Your task to perform on an android device: open app "Truecaller" (install if not already installed) Image 0: 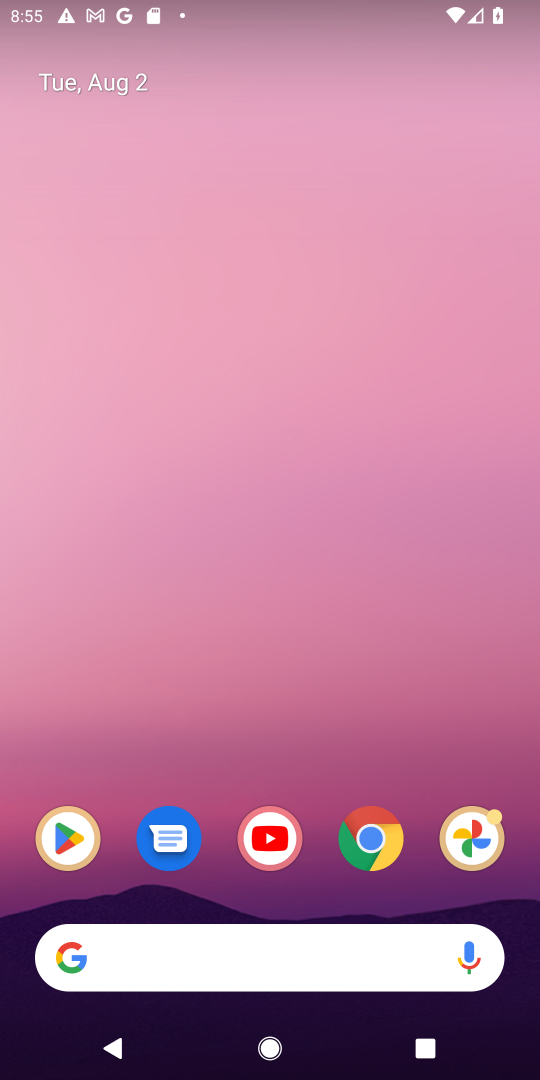
Step 0: press home button
Your task to perform on an android device: open app "Truecaller" (install if not already installed) Image 1: 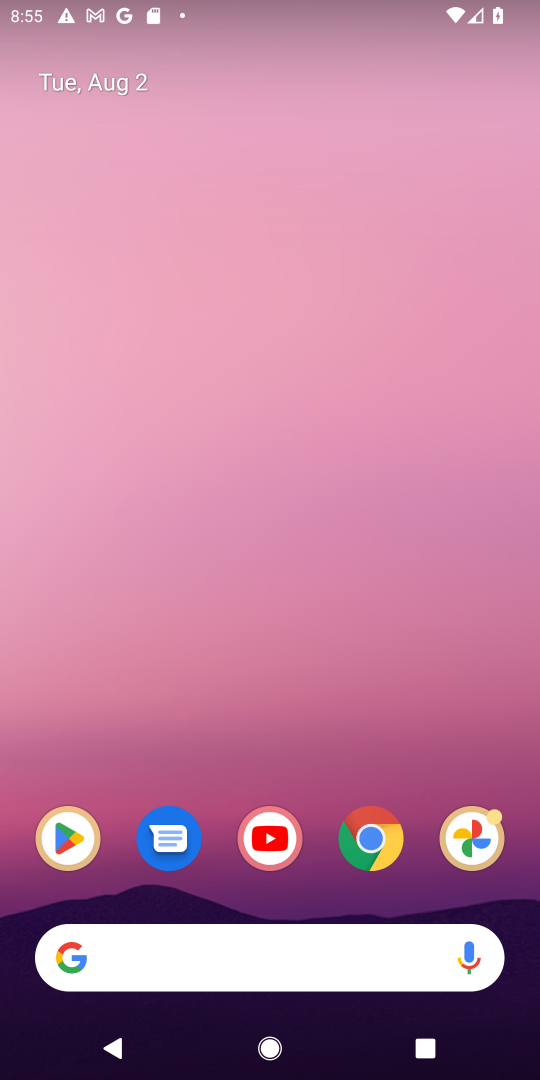
Step 1: drag from (313, 786) to (283, 61)
Your task to perform on an android device: open app "Truecaller" (install if not already installed) Image 2: 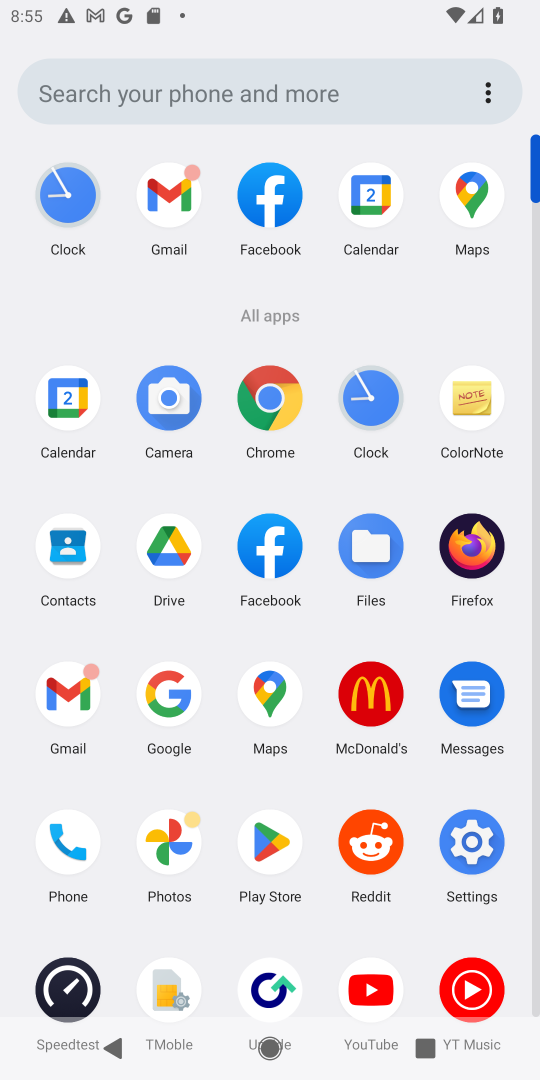
Step 2: click (267, 850)
Your task to perform on an android device: open app "Truecaller" (install if not already installed) Image 3: 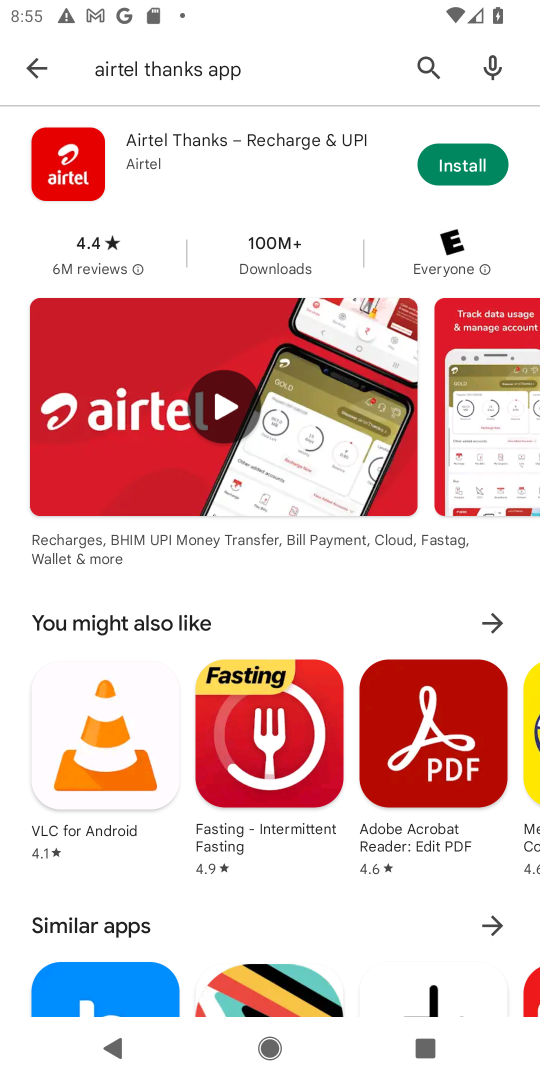
Step 3: click (424, 58)
Your task to perform on an android device: open app "Truecaller" (install if not already installed) Image 4: 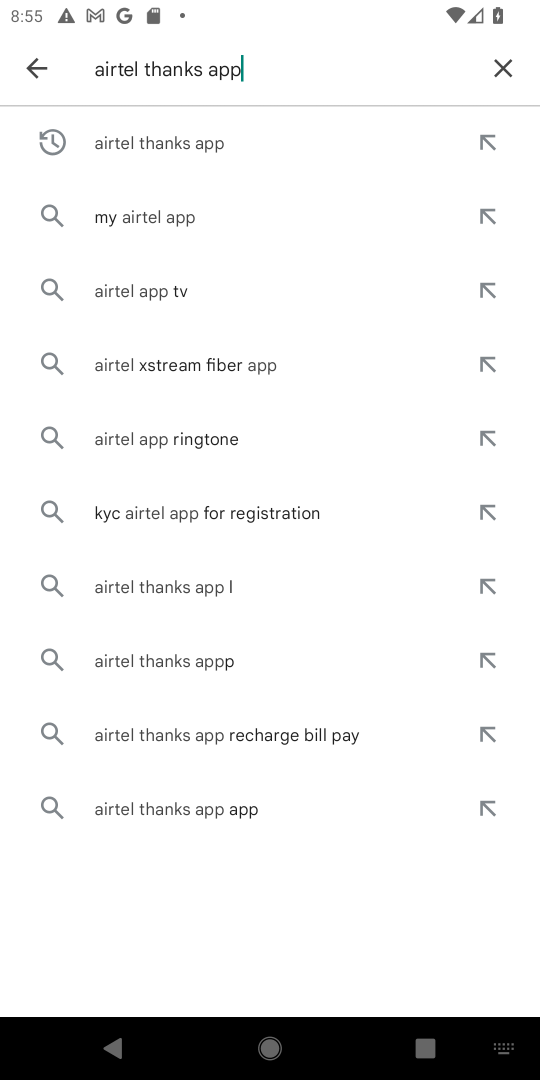
Step 4: click (502, 70)
Your task to perform on an android device: open app "Truecaller" (install if not already installed) Image 5: 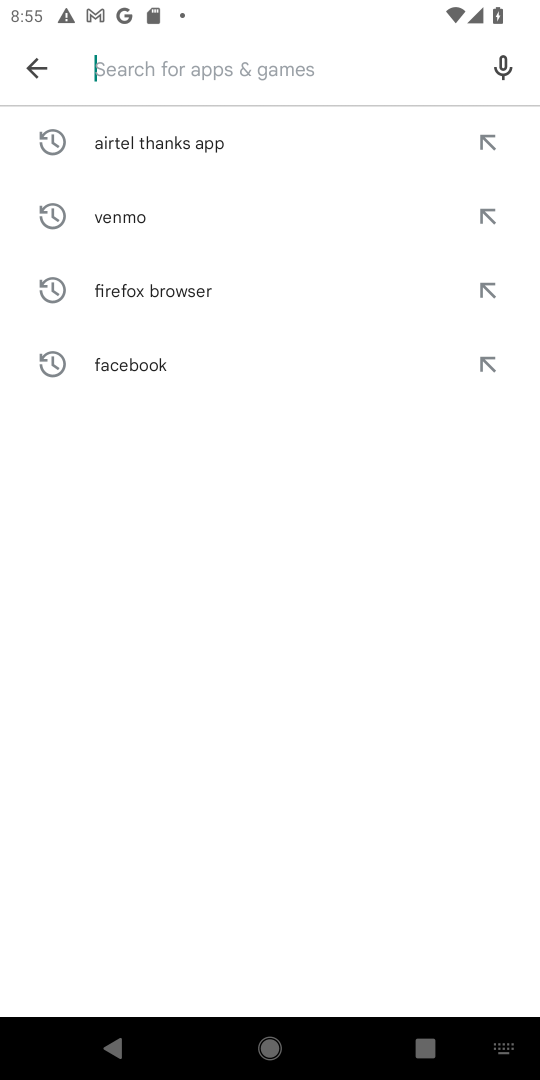
Step 5: click (425, 82)
Your task to perform on an android device: open app "Truecaller" (install if not already installed) Image 6: 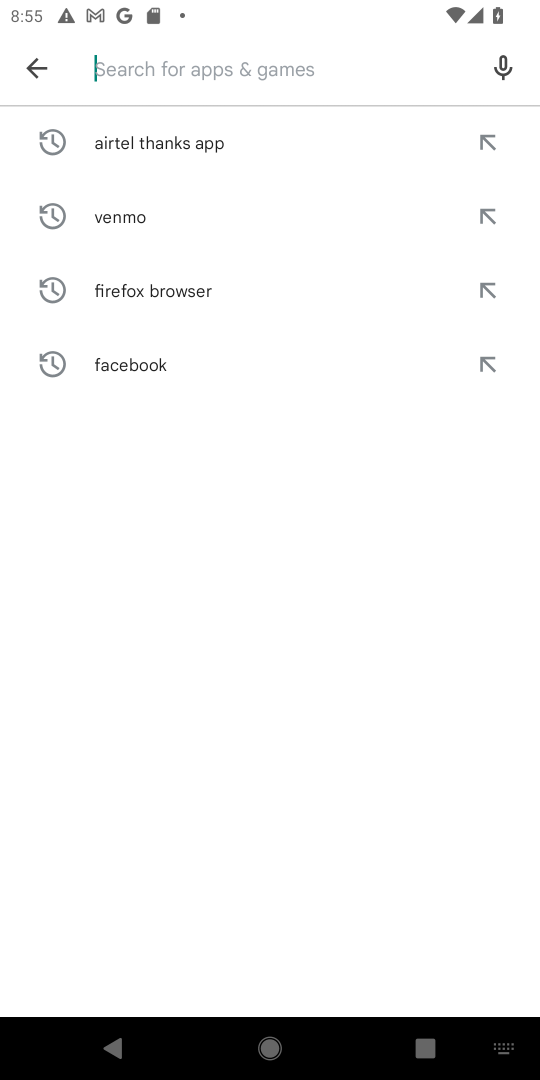
Step 6: type "truecaller"
Your task to perform on an android device: open app "Truecaller" (install if not already installed) Image 7: 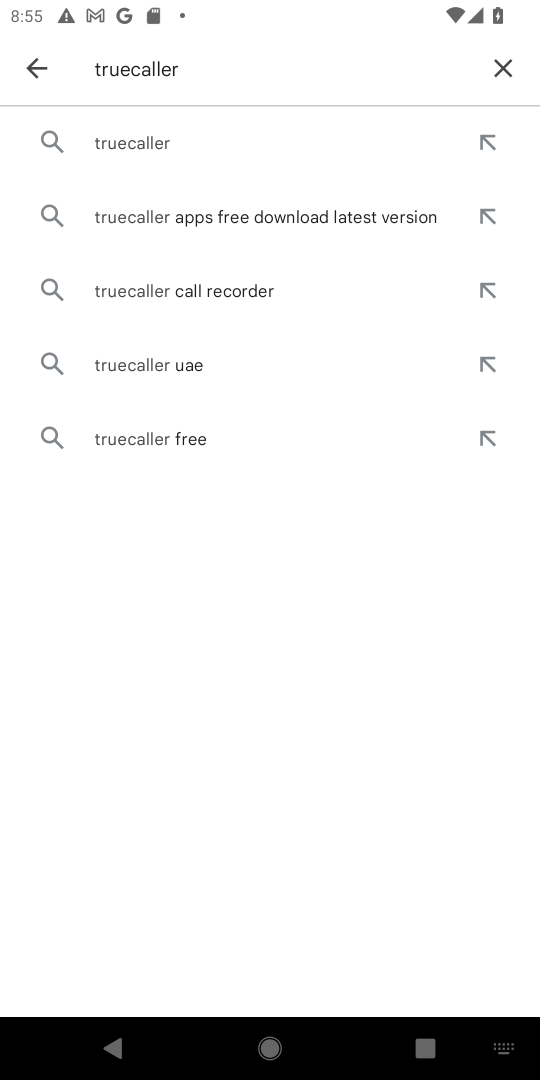
Step 7: click (204, 147)
Your task to perform on an android device: open app "Truecaller" (install if not already installed) Image 8: 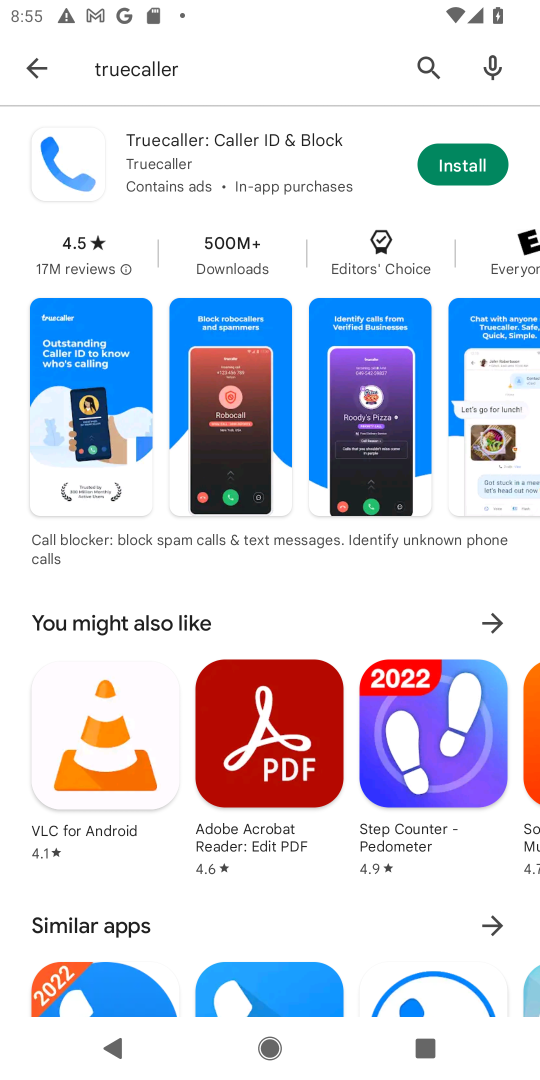
Step 8: click (460, 172)
Your task to perform on an android device: open app "Truecaller" (install if not already installed) Image 9: 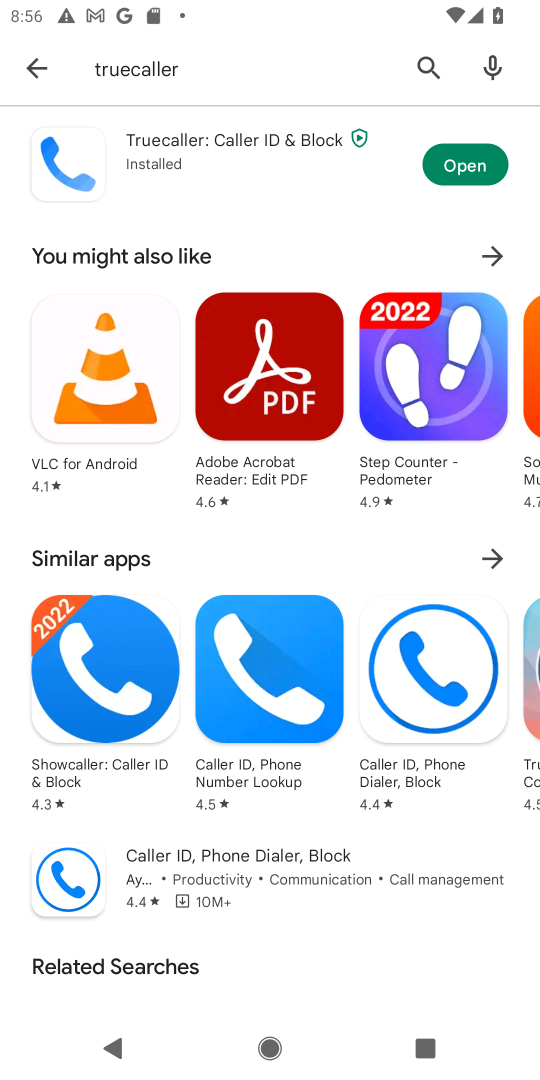
Step 9: click (495, 162)
Your task to perform on an android device: open app "Truecaller" (install if not already installed) Image 10: 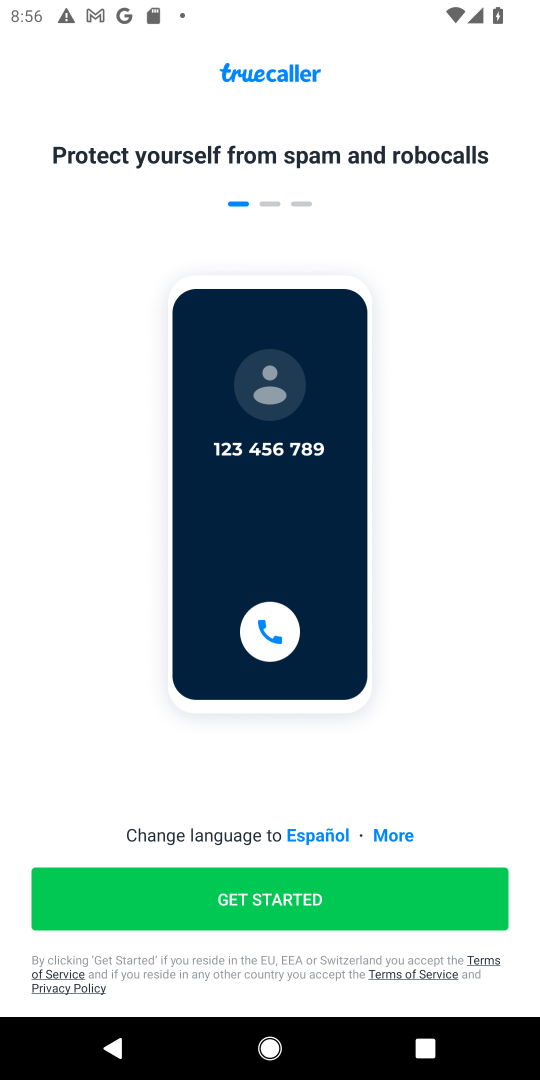
Step 10: task complete